Your task to perform on an android device: show emergency info Image 0: 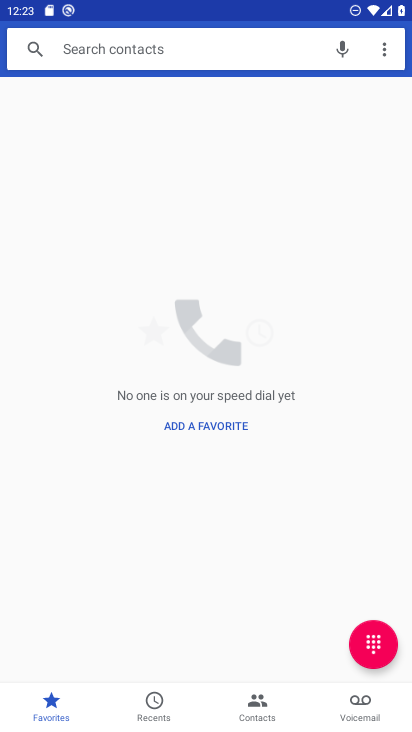
Step 0: press home button
Your task to perform on an android device: show emergency info Image 1: 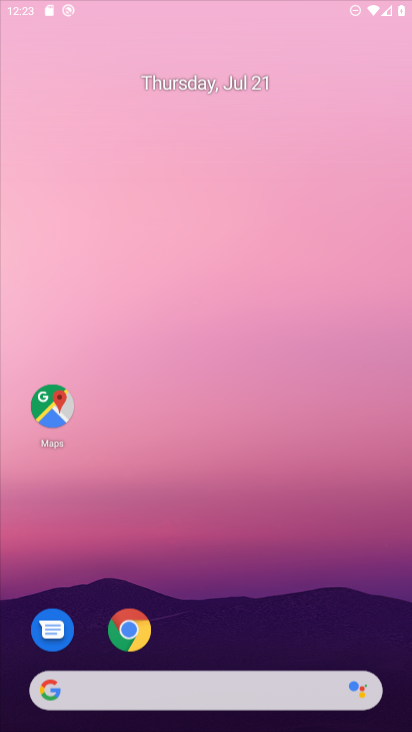
Step 1: drag from (286, 526) to (317, 28)
Your task to perform on an android device: show emergency info Image 2: 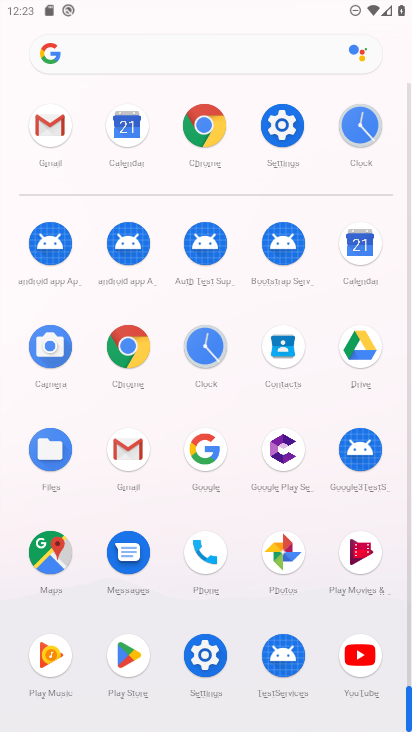
Step 2: click (284, 132)
Your task to perform on an android device: show emergency info Image 3: 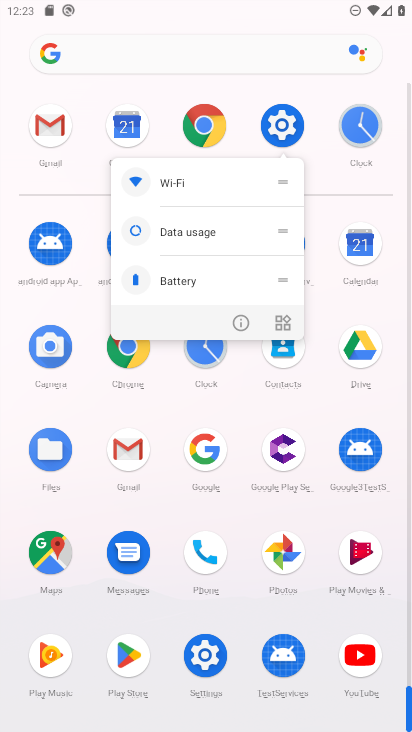
Step 3: click (241, 324)
Your task to perform on an android device: show emergency info Image 4: 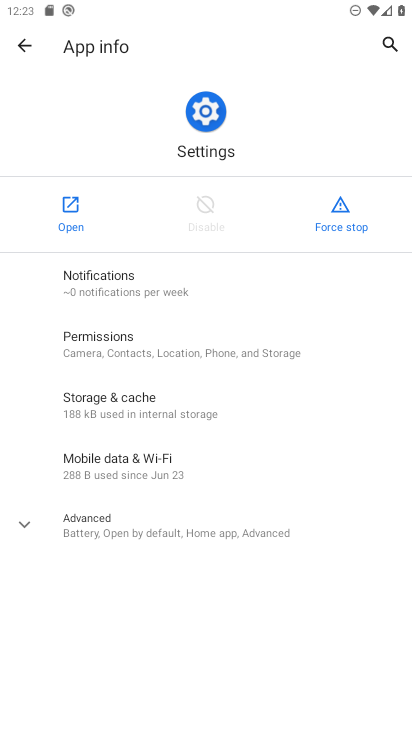
Step 4: click (73, 219)
Your task to perform on an android device: show emergency info Image 5: 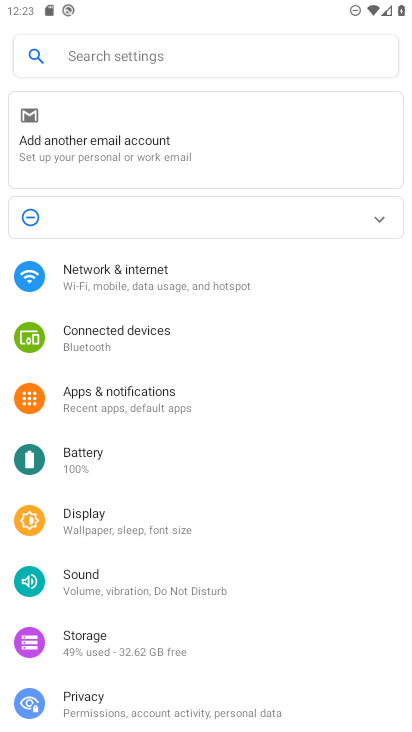
Step 5: drag from (219, 605) to (284, 48)
Your task to perform on an android device: show emergency info Image 6: 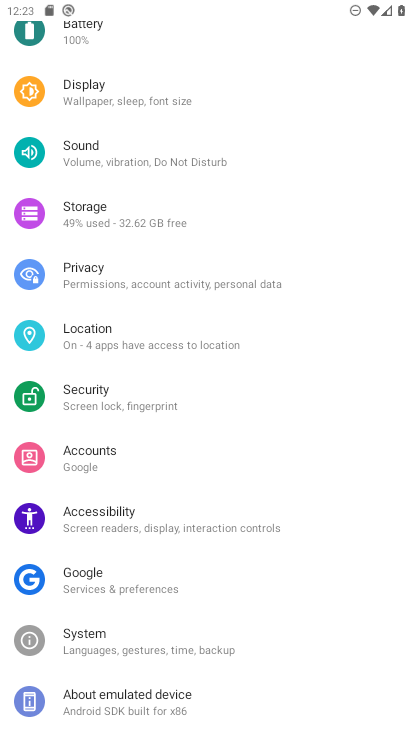
Step 6: click (161, 701)
Your task to perform on an android device: show emergency info Image 7: 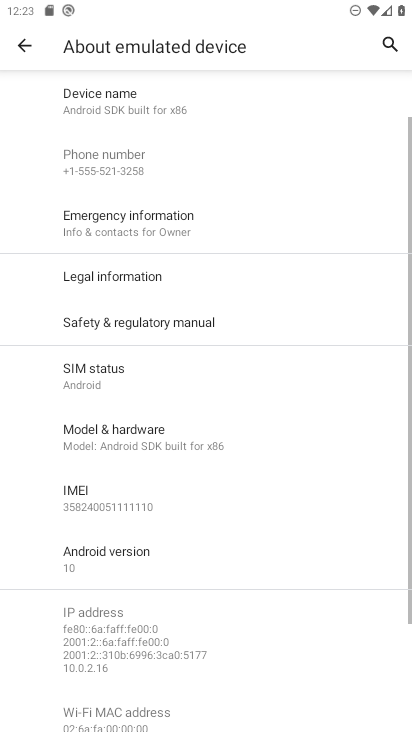
Step 7: click (150, 217)
Your task to perform on an android device: show emergency info Image 8: 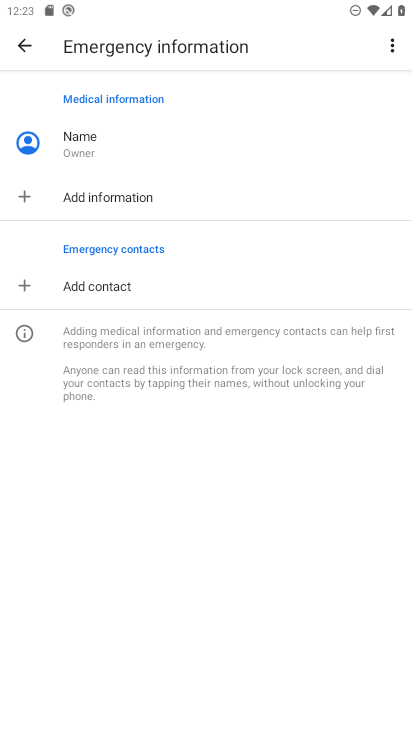
Step 8: task complete